Your task to perform on an android device: Open location settings Image 0: 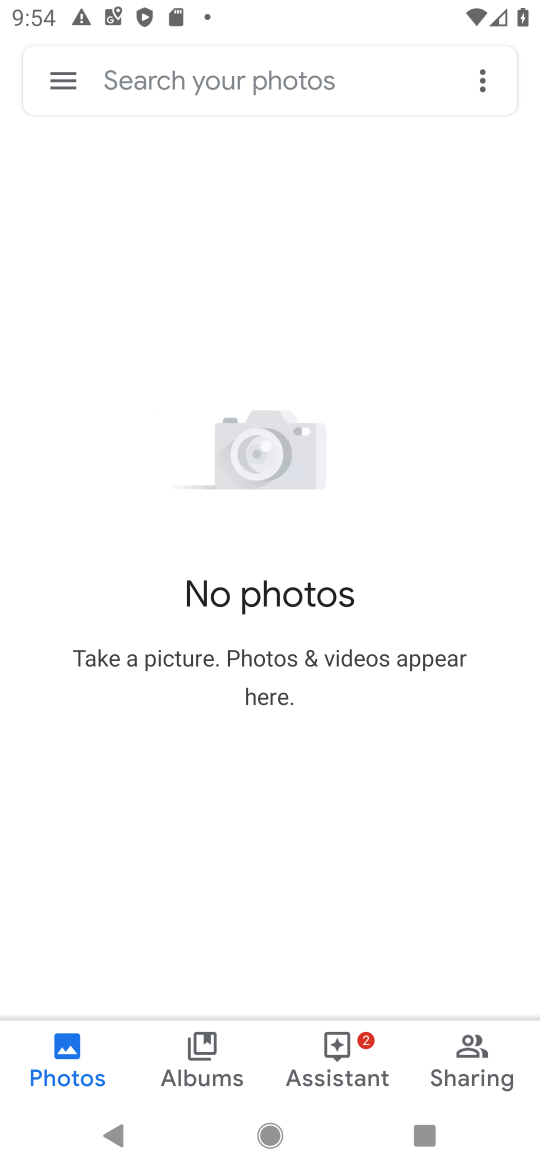
Step 0: press home button
Your task to perform on an android device: Open location settings Image 1: 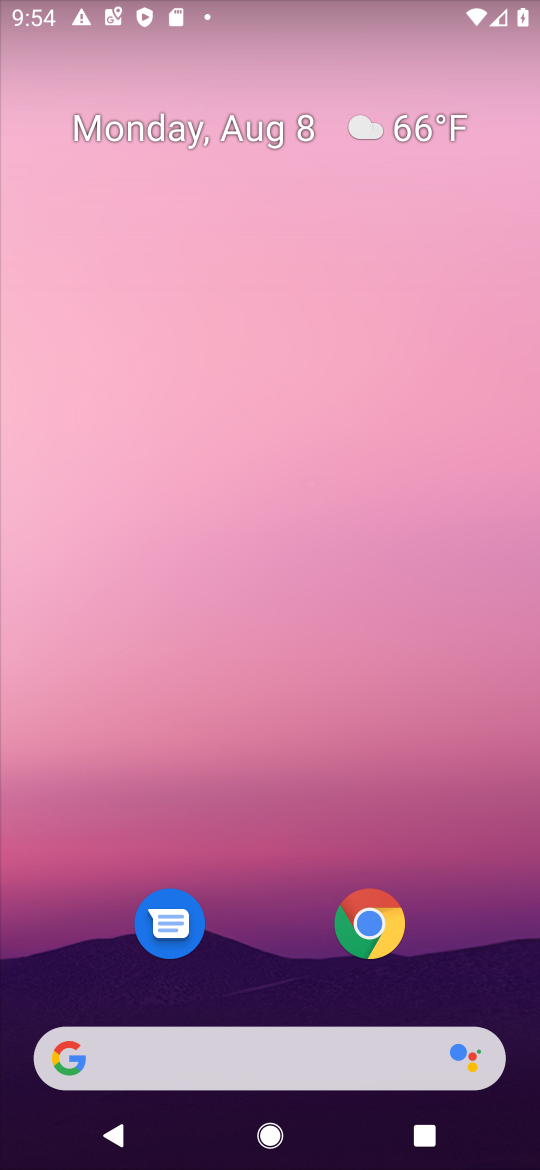
Step 1: drag from (49, 1106) to (342, 141)
Your task to perform on an android device: Open location settings Image 2: 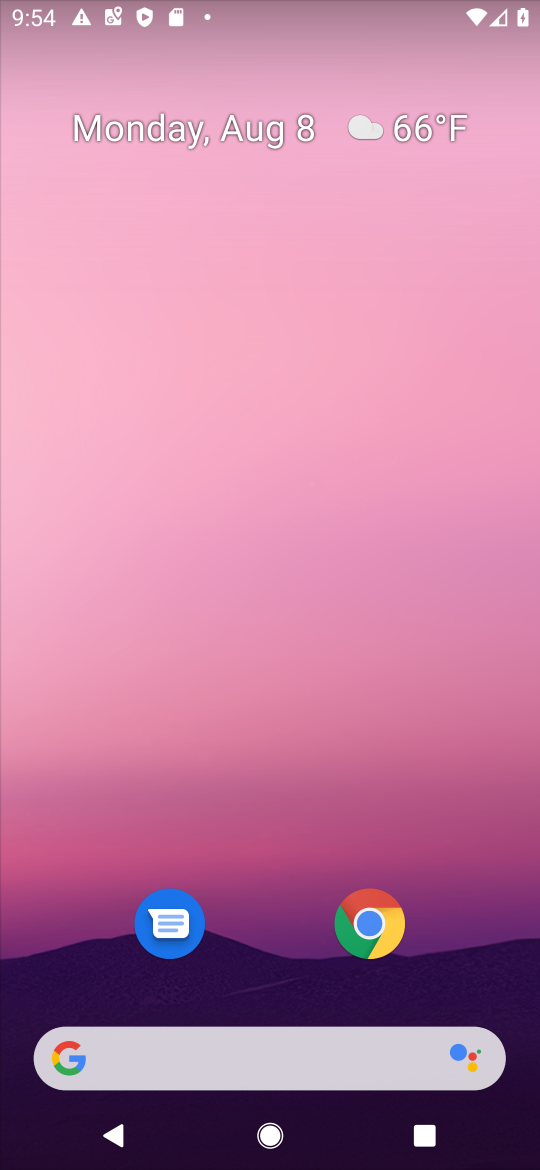
Step 2: drag from (41, 1128) to (412, 289)
Your task to perform on an android device: Open location settings Image 3: 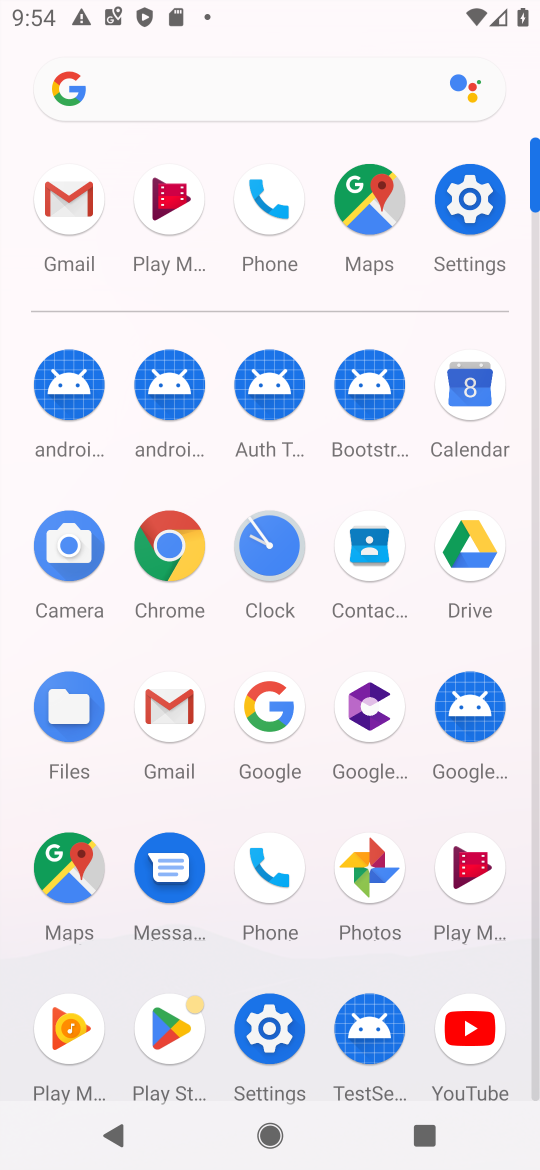
Step 3: click (275, 1025)
Your task to perform on an android device: Open location settings Image 4: 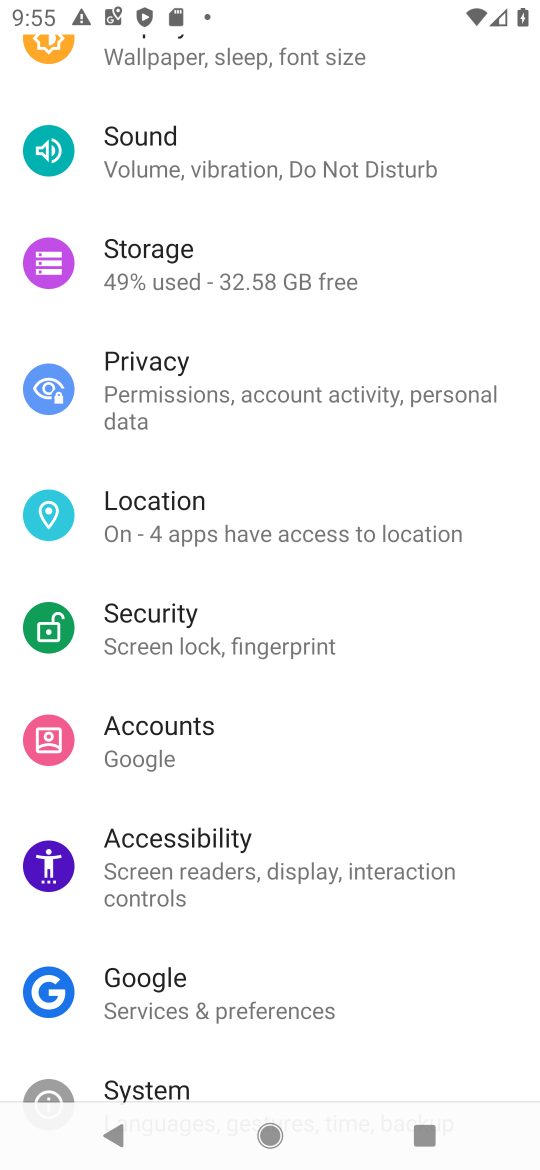
Step 4: click (201, 503)
Your task to perform on an android device: Open location settings Image 5: 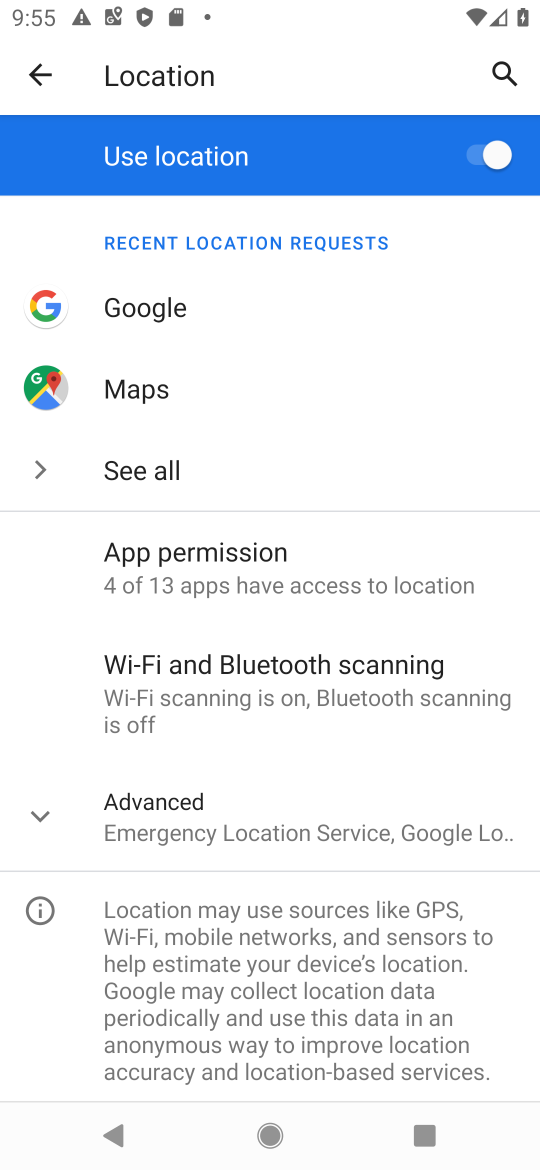
Step 5: task complete